Your task to perform on an android device: turn on the 12-hour format for clock Image 0: 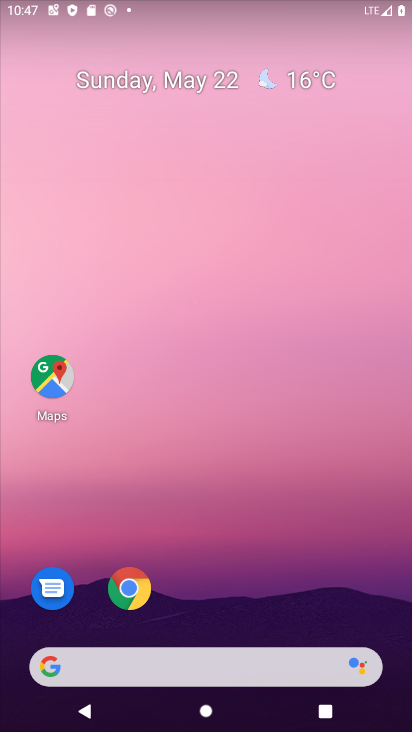
Step 0: drag from (211, 619) to (211, 133)
Your task to perform on an android device: turn on the 12-hour format for clock Image 1: 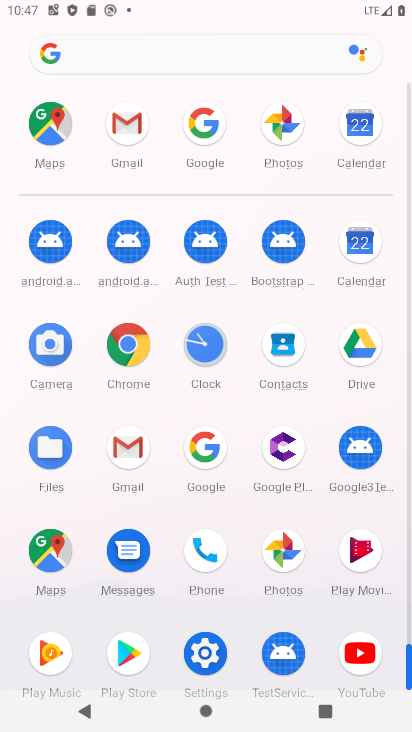
Step 1: click (197, 351)
Your task to perform on an android device: turn on the 12-hour format for clock Image 2: 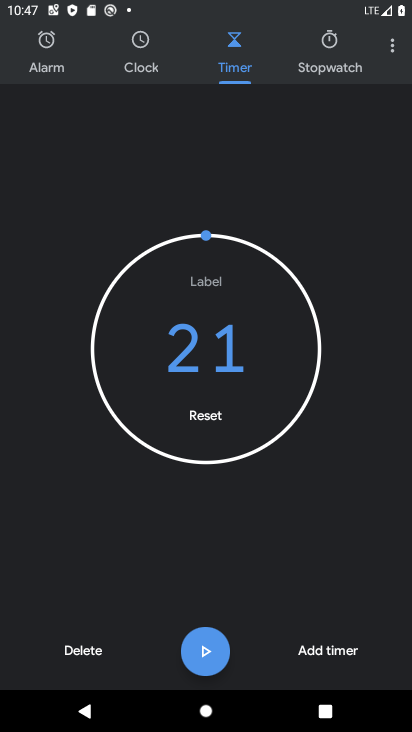
Step 2: click (393, 49)
Your task to perform on an android device: turn on the 12-hour format for clock Image 3: 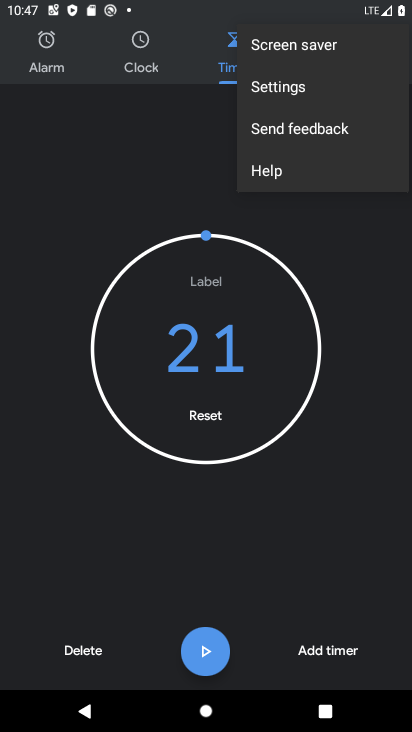
Step 3: click (328, 81)
Your task to perform on an android device: turn on the 12-hour format for clock Image 4: 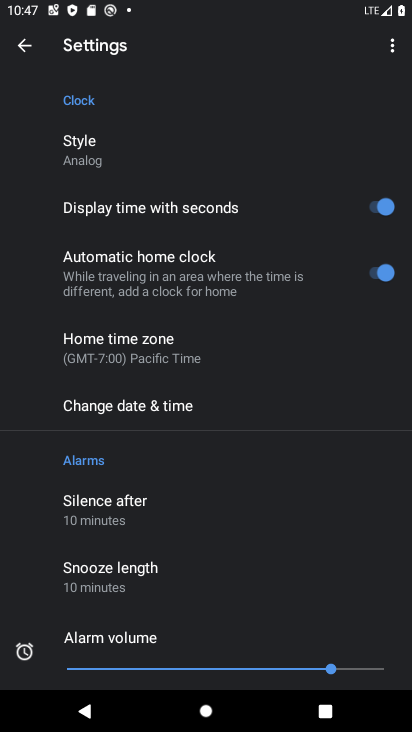
Step 4: click (156, 415)
Your task to perform on an android device: turn on the 12-hour format for clock Image 5: 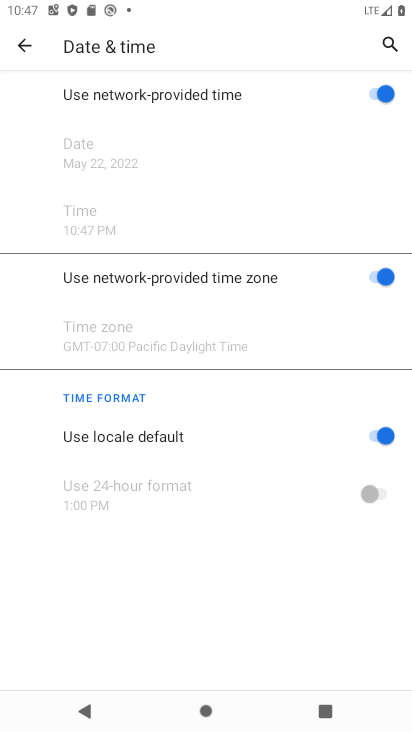
Step 5: click (371, 428)
Your task to perform on an android device: turn on the 12-hour format for clock Image 6: 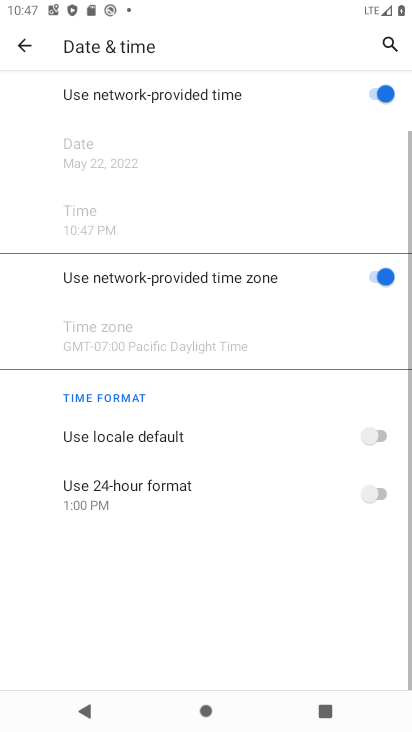
Step 6: click (381, 488)
Your task to perform on an android device: turn on the 12-hour format for clock Image 7: 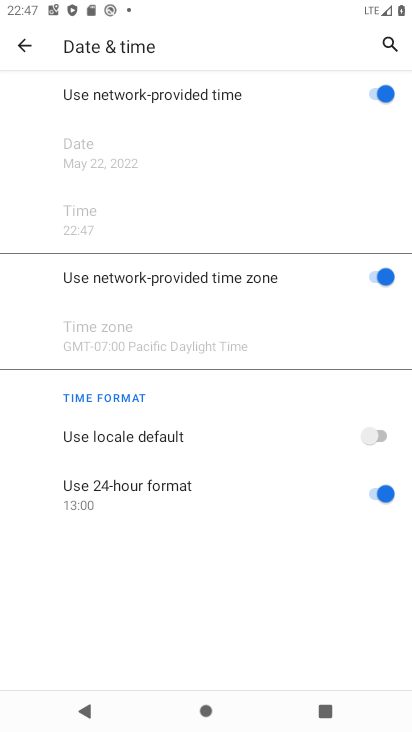
Step 7: click (369, 487)
Your task to perform on an android device: turn on the 12-hour format for clock Image 8: 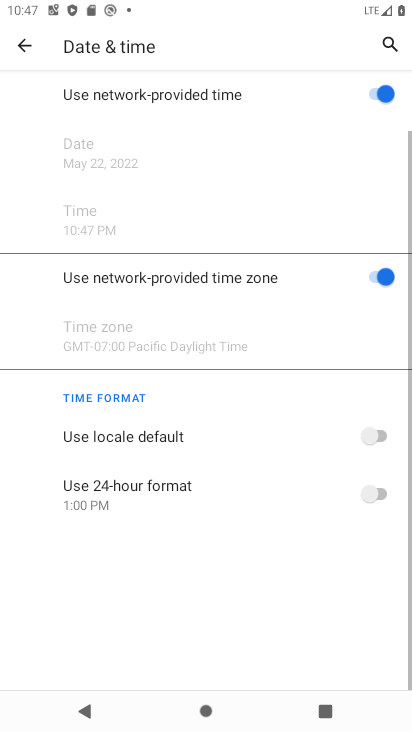
Step 8: click (382, 429)
Your task to perform on an android device: turn on the 12-hour format for clock Image 9: 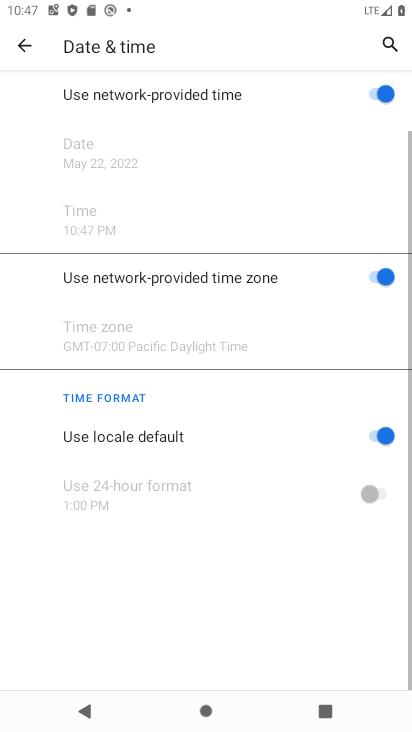
Step 9: task complete